Your task to perform on an android device: turn off improve location accuracy Image 0: 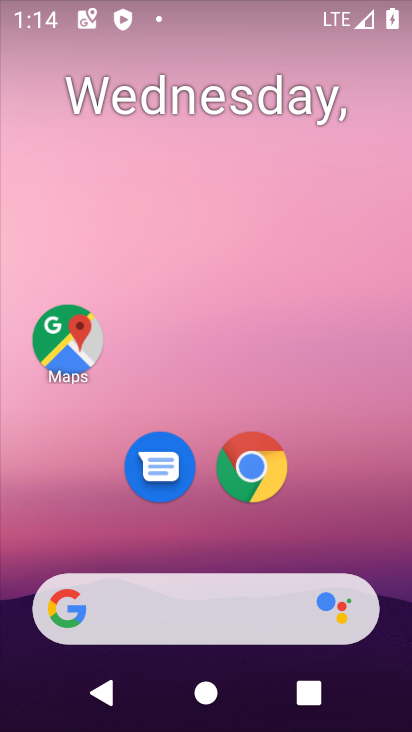
Step 0: press home button
Your task to perform on an android device: turn off improve location accuracy Image 1: 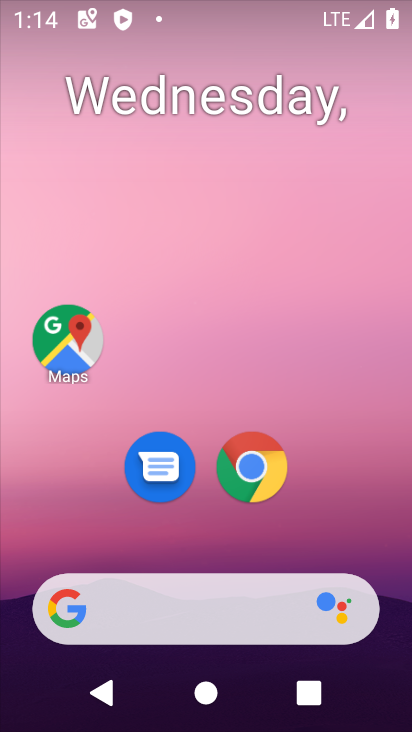
Step 1: drag from (214, 520) to (241, 25)
Your task to perform on an android device: turn off improve location accuracy Image 2: 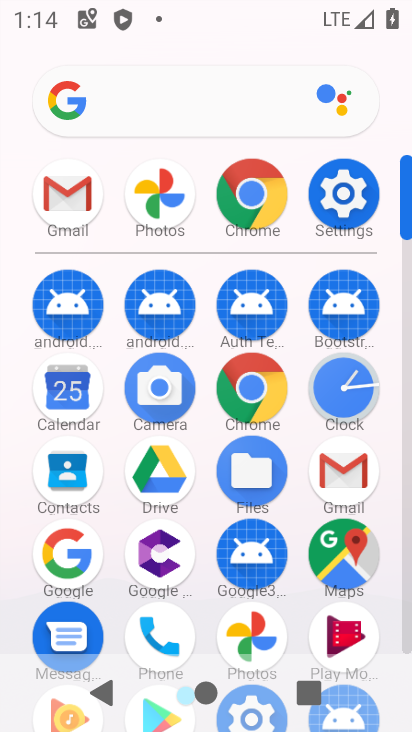
Step 2: click (344, 188)
Your task to perform on an android device: turn off improve location accuracy Image 3: 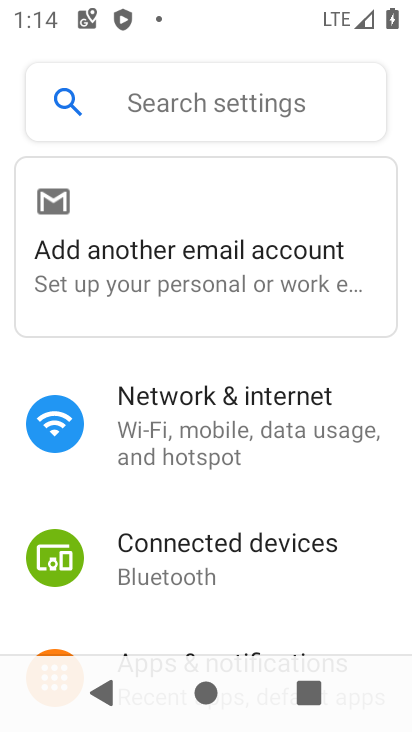
Step 3: drag from (231, 583) to (281, 74)
Your task to perform on an android device: turn off improve location accuracy Image 4: 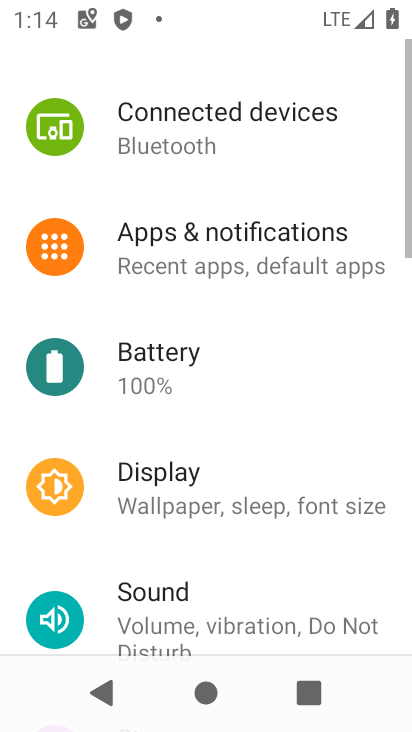
Step 4: drag from (212, 601) to (227, 118)
Your task to perform on an android device: turn off improve location accuracy Image 5: 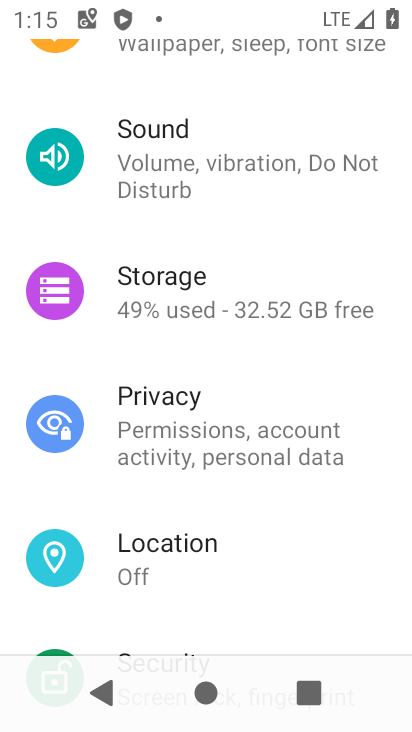
Step 5: click (190, 566)
Your task to perform on an android device: turn off improve location accuracy Image 6: 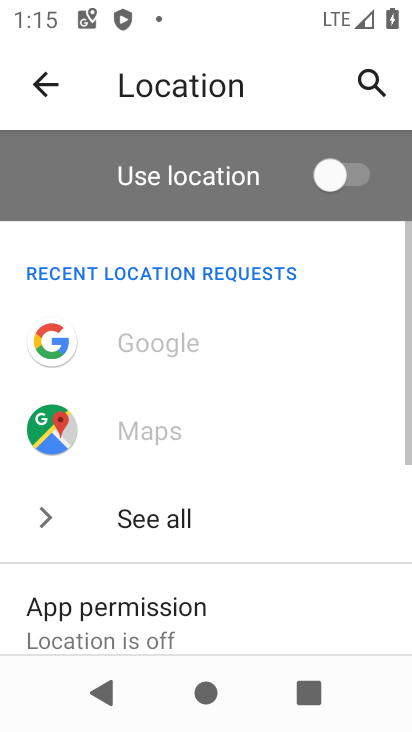
Step 6: drag from (272, 546) to (280, 151)
Your task to perform on an android device: turn off improve location accuracy Image 7: 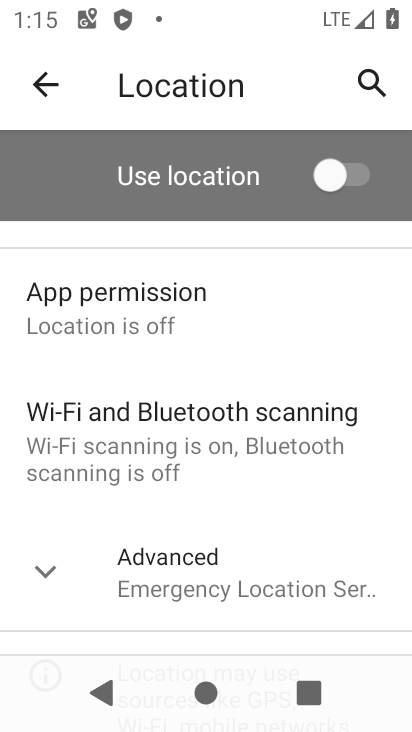
Step 7: click (224, 577)
Your task to perform on an android device: turn off improve location accuracy Image 8: 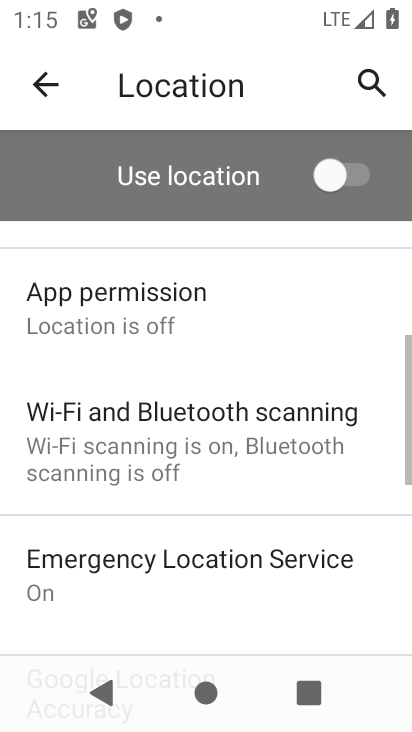
Step 8: drag from (270, 565) to (271, 244)
Your task to perform on an android device: turn off improve location accuracy Image 9: 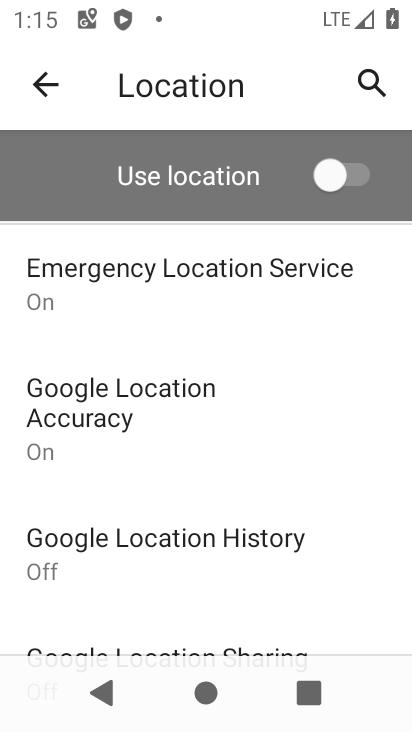
Step 9: drag from (246, 634) to (241, 439)
Your task to perform on an android device: turn off improve location accuracy Image 10: 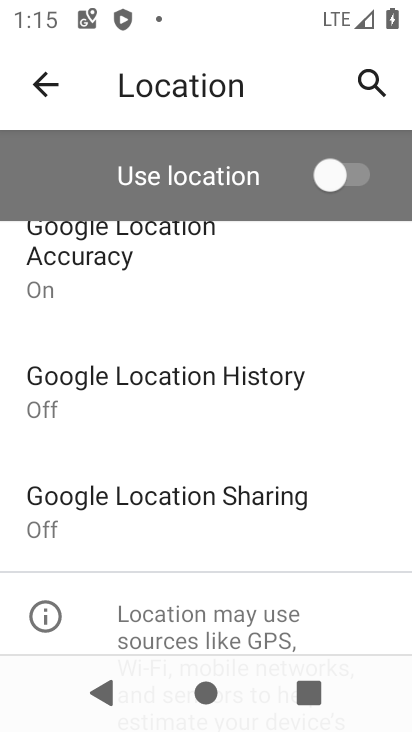
Step 10: drag from (188, 419) to (241, 585)
Your task to perform on an android device: turn off improve location accuracy Image 11: 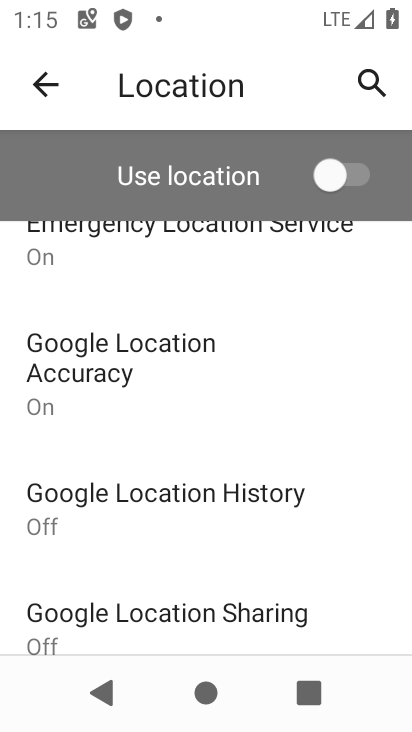
Step 11: drag from (221, 337) to (235, 451)
Your task to perform on an android device: turn off improve location accuracy Image 12: 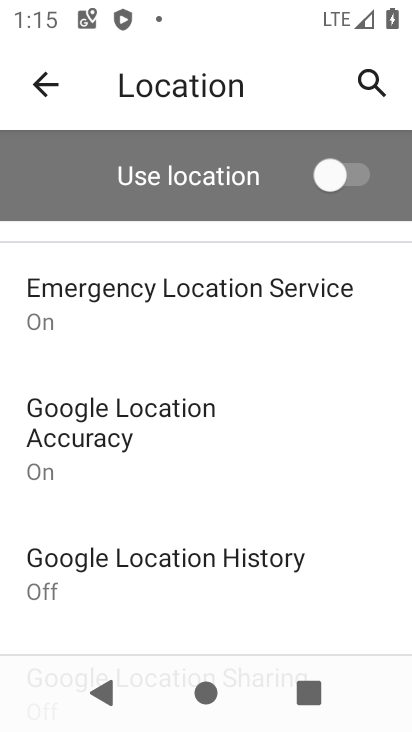
Step 12: click (156, 432)
Your task to perform on an android device: turn off improve location accuracy Image 13: 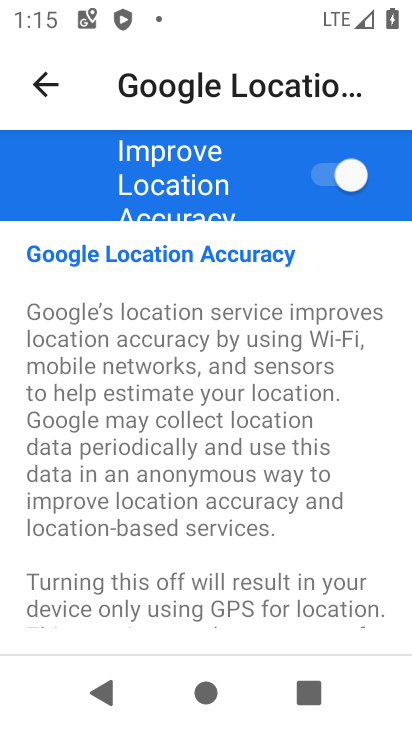
Step 13: click (351, 175)
Your task to perform on an android device: turn off improve location accuracy Image 14: 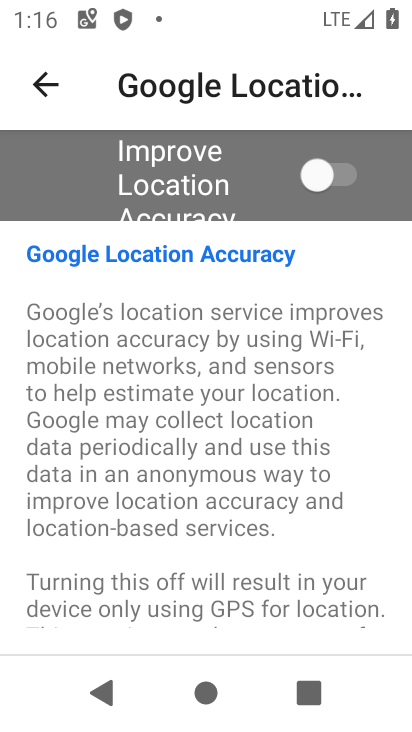
Step 14: task complete